Your task to perform on an android device: open wifi settings Image 0: 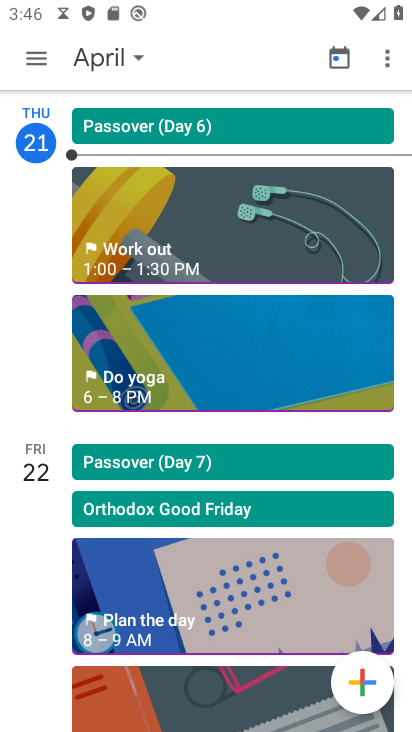
Step 0: press home button
Your task to perform on an android device: open wifi settings Image 1: 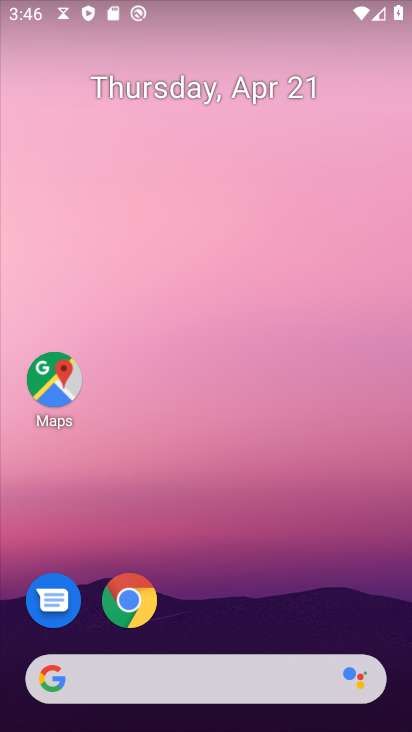
Step 1: drag from (239, 561) to (208, 82)
Your task to perform on an android device: open wifi settings Image 2: 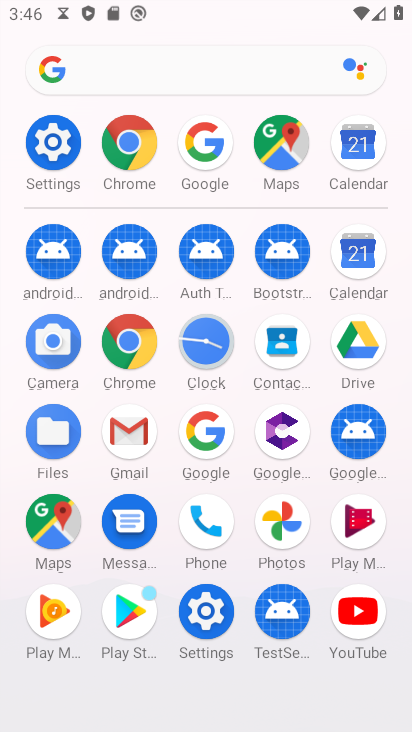
Step 2: click (55, 141)
Your task to perform on an android device: open wifi settings Image 3: 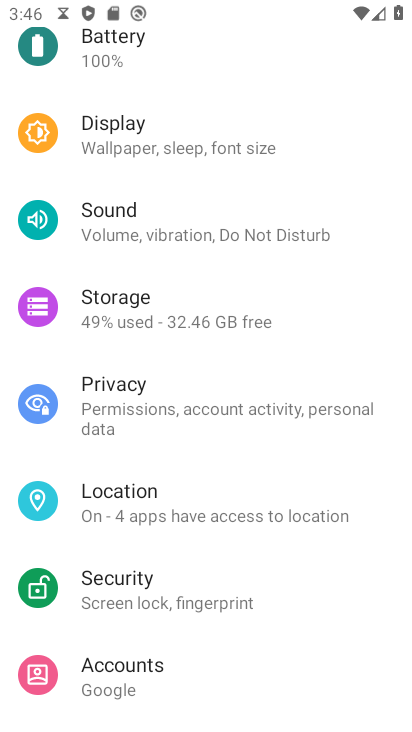
Step 3: drag from (170, 187) to (161, 308)
Your task to perform on an android device: open wifi settings Image 4: 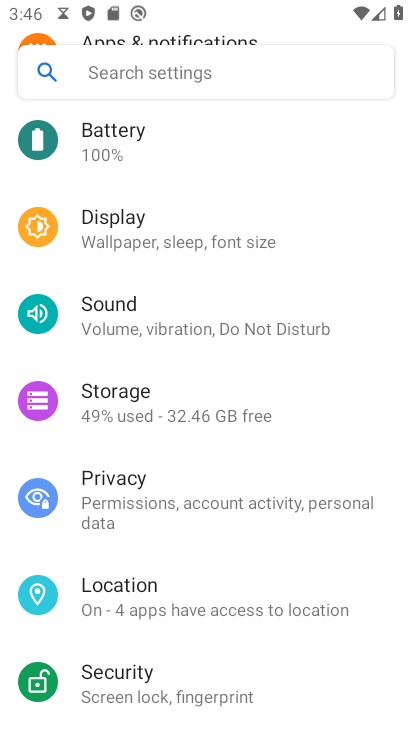
Step 4: drag from (184, 185) to (164, 344)
Your task to perform on an android device: open wifi settings Image 5: 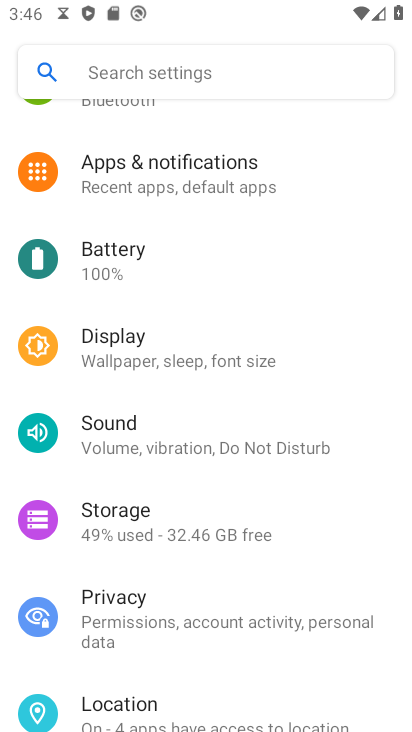
Step 5: drag from (183, 269) to (165, 393)
Your task to perform on an android device: open wifi settings Image 6: 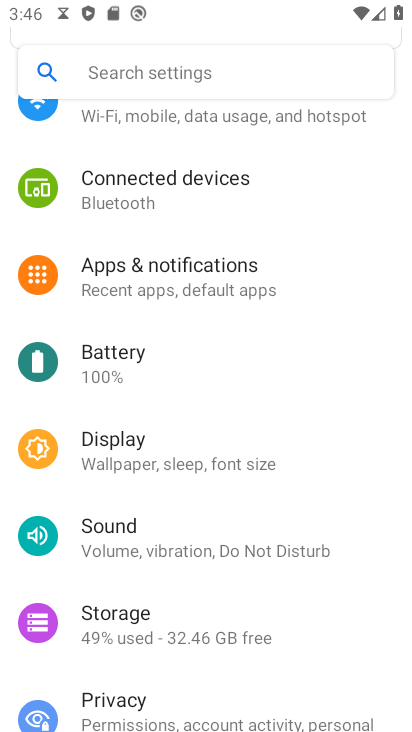
Step 6: drag from (193, 231) to (227, 452)
Your task to perform on an android device: open wifi settings Image 7: 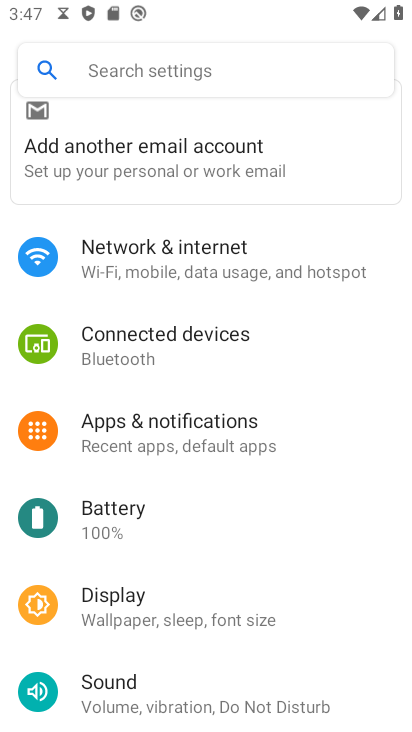
Step 7: click (197, 249)
Your task to perform on an android device: open wifi settings Image 8: 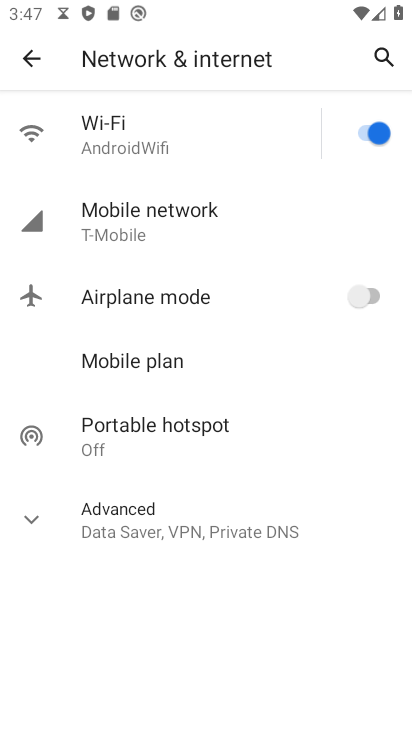
Step 8: click (113, 142)
Your task to perform on an android device: open wifi settings Image 9: 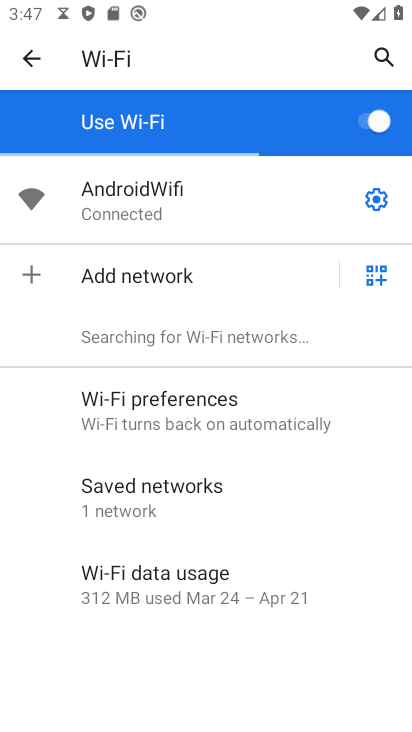
Step 9: click (376, 198)
Your task to perform on an android device: open wifi settings Image 10: 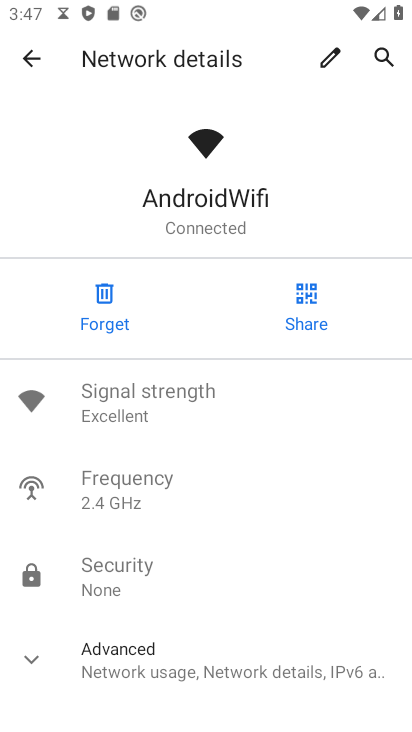
Step 10: task complete